Your task to perform on an android device: set the timer Image 0: 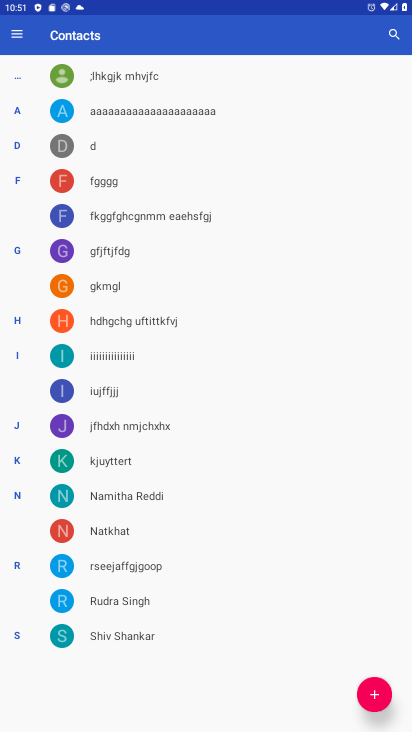
Step 0: press home button
Your task to perform on an android device: set the timer Image 1: 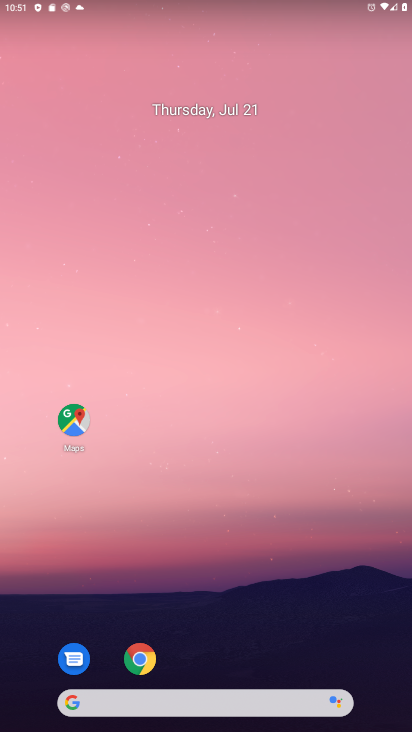
Step 1: drag from (246, 620) to (229, 159)
Your task to perform on an android device: set the timer Image 2: 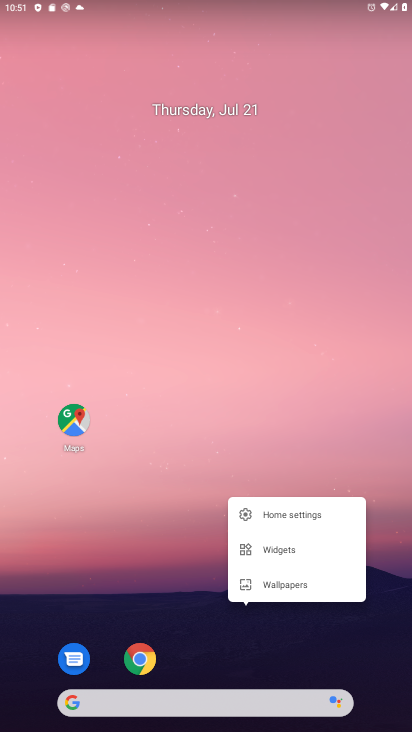
Step 2: click (181, 438)
Your task to perform on an android device: set the timer Image 3: 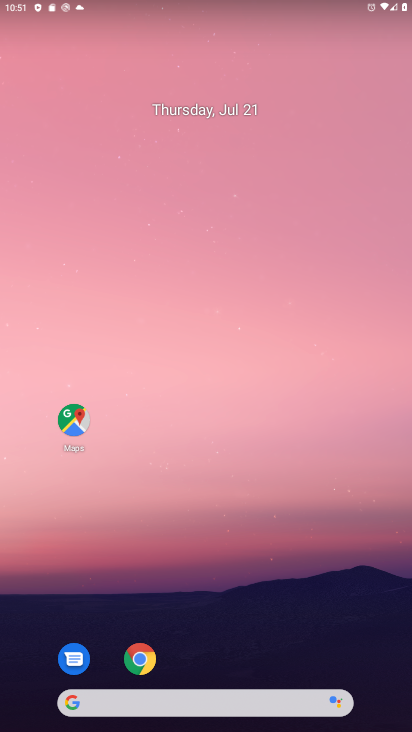
Step 3: drag from (218, 670) to (243, 184)
Your task to perform on an android device: set the timer Image 4: 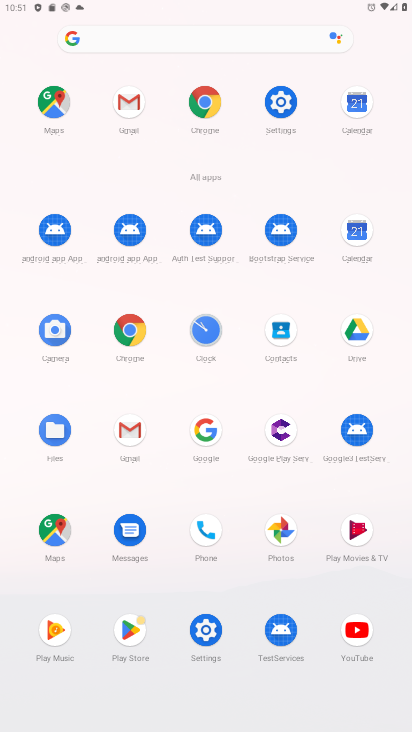
Step 4: click (199, 349)
Your task to perform on an android device: set the timer Image 5: 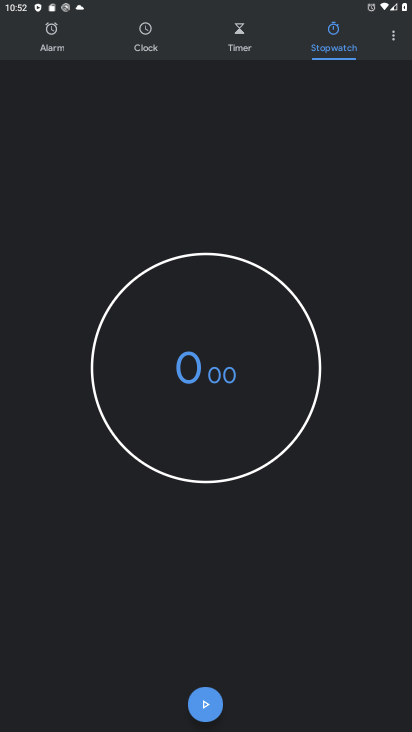
Step 5: click (222, 21)
Your task to perform on an android device: set the timer Image 6: 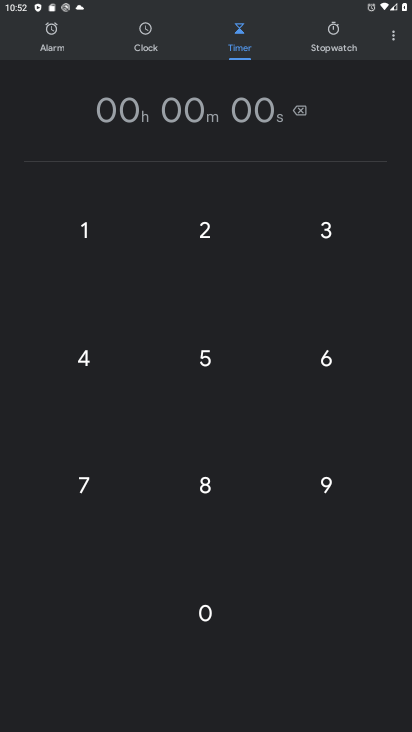
Step 6: task complete